Your task to perform on an android device: Search for seafood restaurants on Google Maps Image 0: 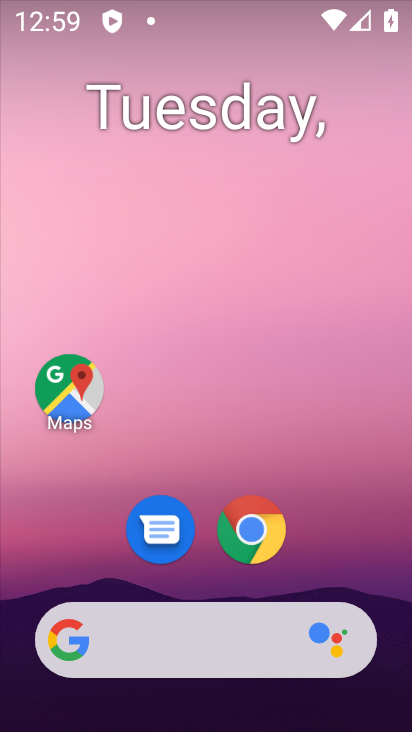
Step 0: click (53, 397)
Your task to perform on an android device: Search for seafood restaurants on Google Maps Image 1: 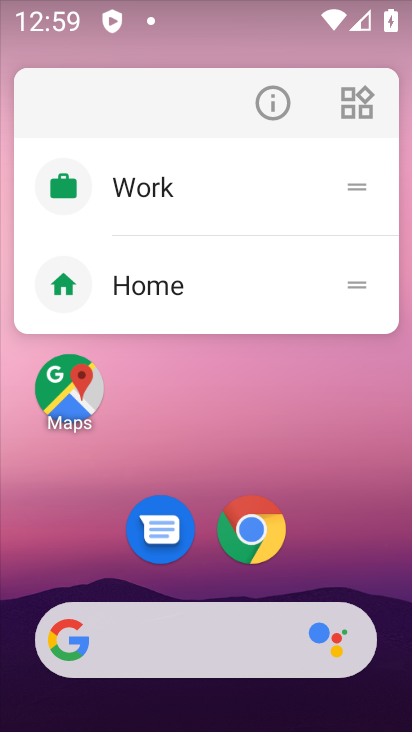
Step 1: click (71, 391)
Your task to perform on an android device: Search for seafood restaurants on Google Maps Image 2: 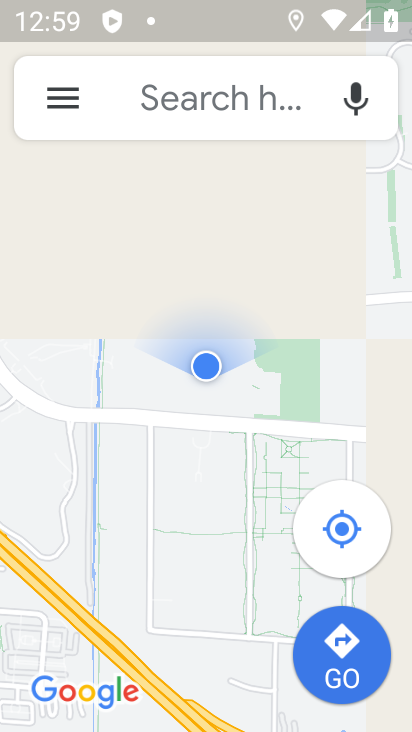
Step 2: click (208, 108)
Your task to perform on an android device: Search for seafood restaurants on Google Maps Image 3: 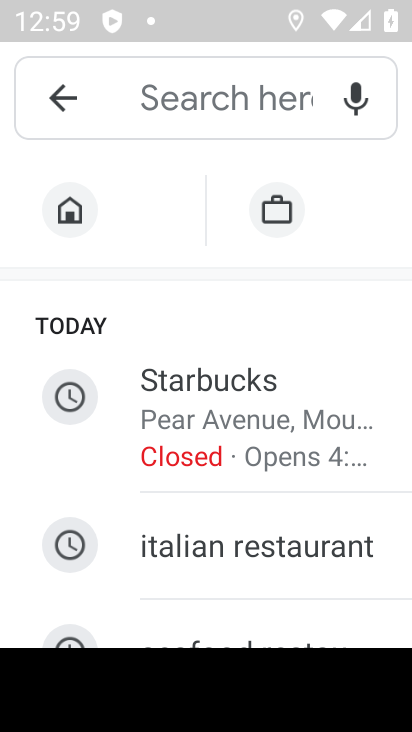
Step 3: type "seafood restaurants"
Your task to perform on an android device: Search for seafood restaurants on Google Maps Image 4: 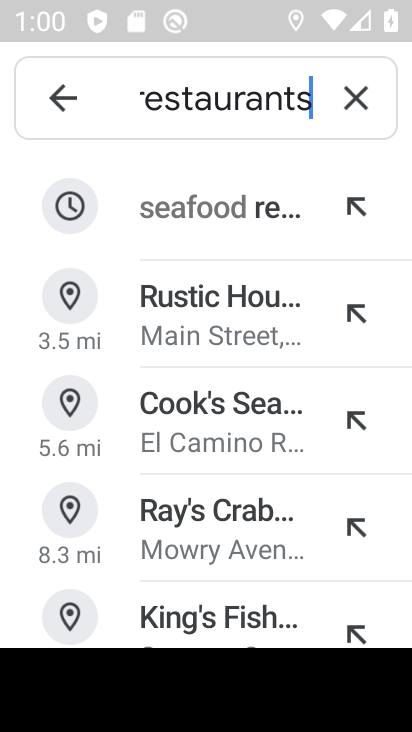
Step 4: click (267, 205)
Your task to perform on an android device: Search for seafood restaurants on Google Maps Image 5: 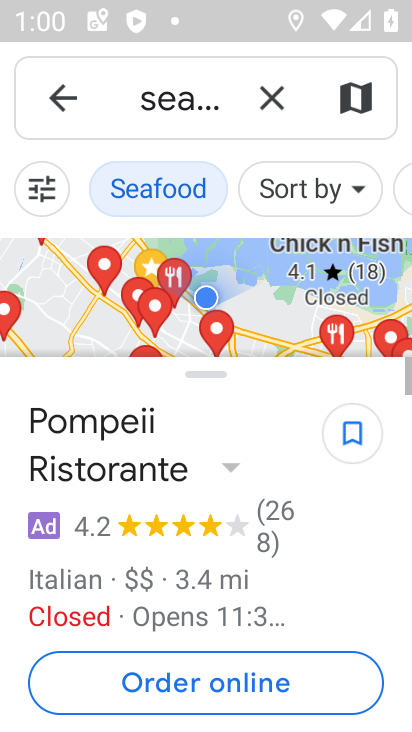
Step 5: task complete